Your task to perform on an android device: add a contact Image 0: 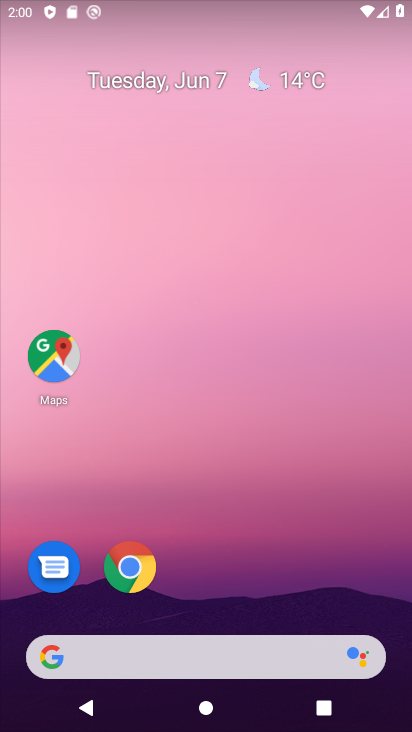
Step 0: drag from (230, 599) to (181, 221)
Your task to perform on an android device: add a contact Image 1: 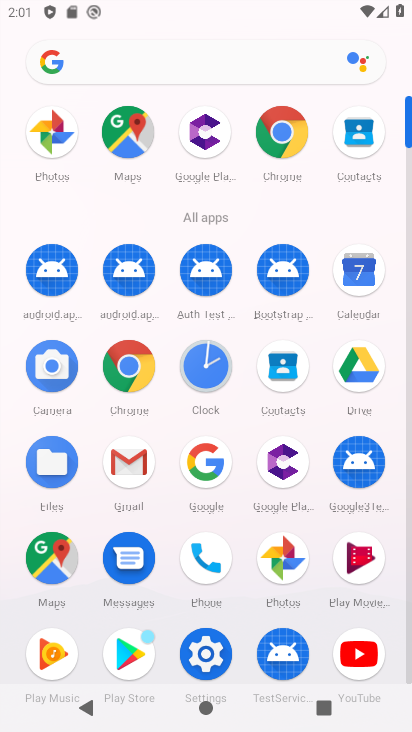
Step 1: click (289, 374)
Your task to perform on an android device: add a contact Image 2: 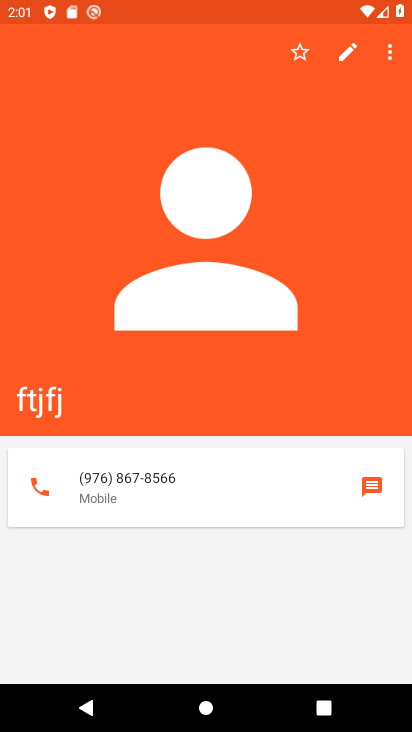
Step 2: press back button
Your task to perform on an android device: add a contact Image 3: 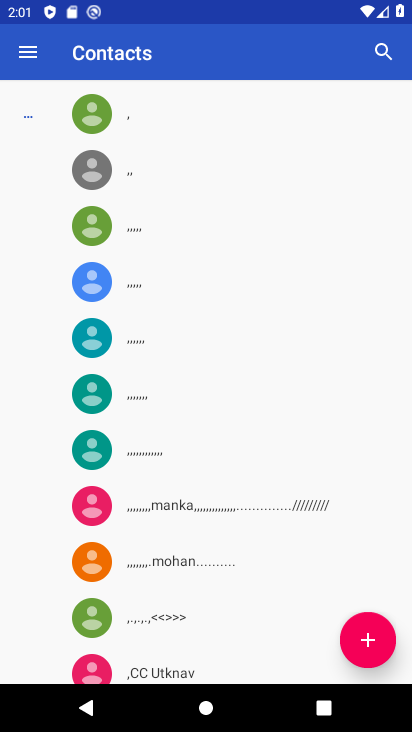
Step 3: click (360, 643)
Your task to perform on an android device: add a contact Image 4: 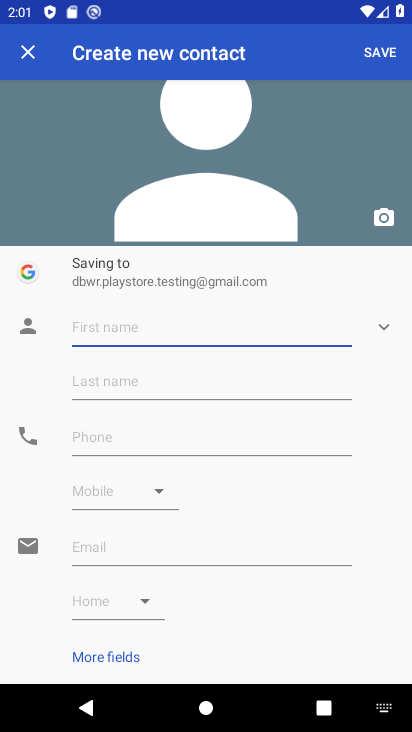
Step 4: click (175, 326)
Your task to perform on an android device: add a contact Image 5: 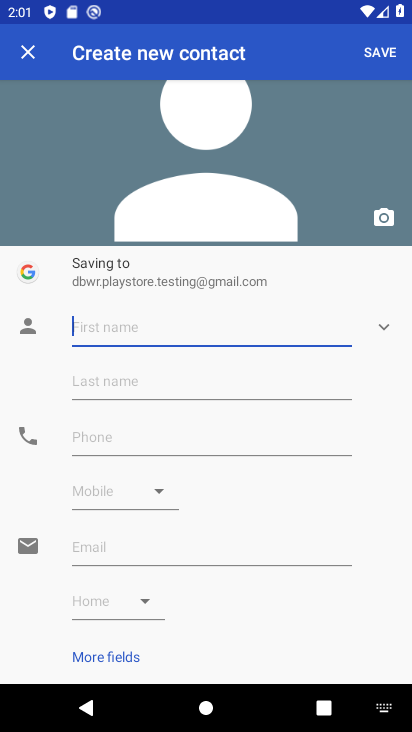
Step 5: type "dhdsrh"
Your task to perform on an android device: add a contact Image 6: 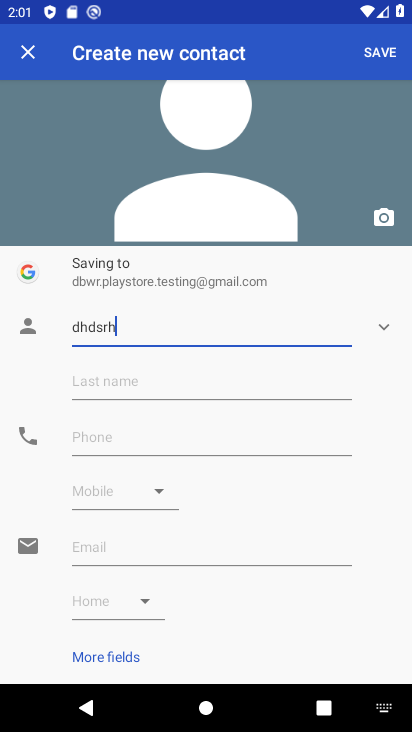
Step 6: click (130, 442)
Your task to perform on an android device: add a contact Image 7: 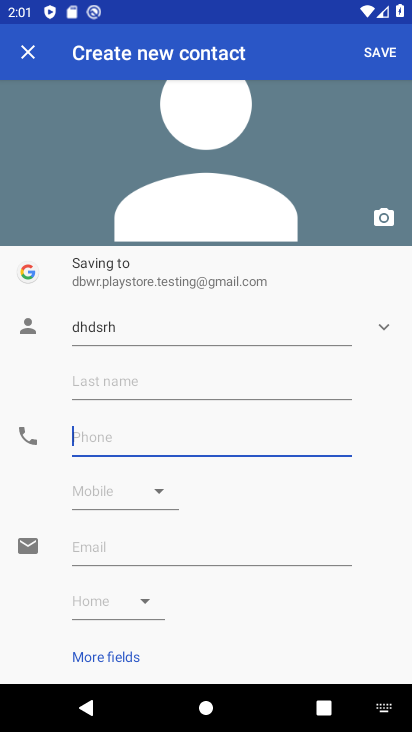
Step 7: type "9675865375"
Your task to perform on an android device: add a contact Image 8: 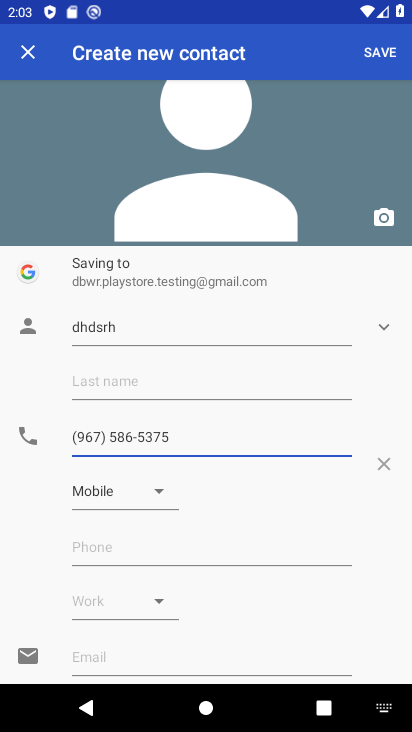
Step 8: click (370, 53)
Your task to perform on an android device: add a contact Image 9: 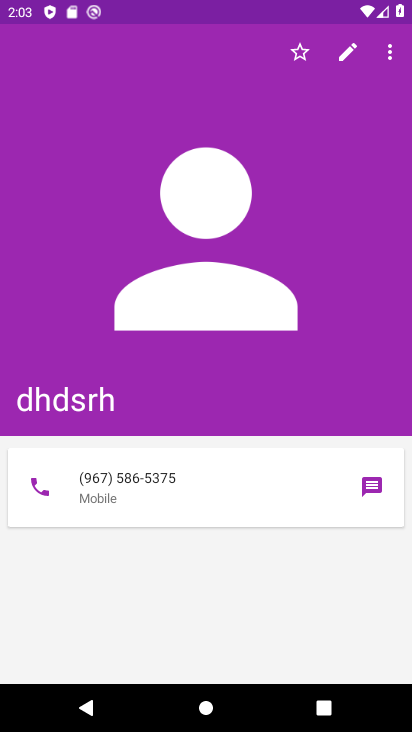
Step 9: task complete